Your task to perform on an android device: check storage Image 0: 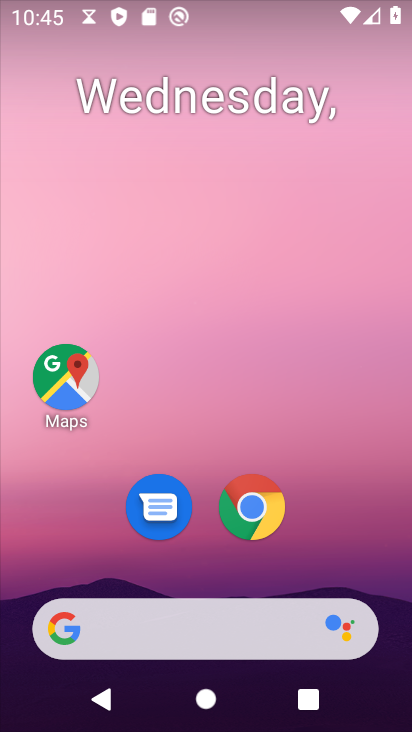
Step 0: drag from (218, 672) to (239, 140)
Your task to perform on an android device: check storage Image 1: 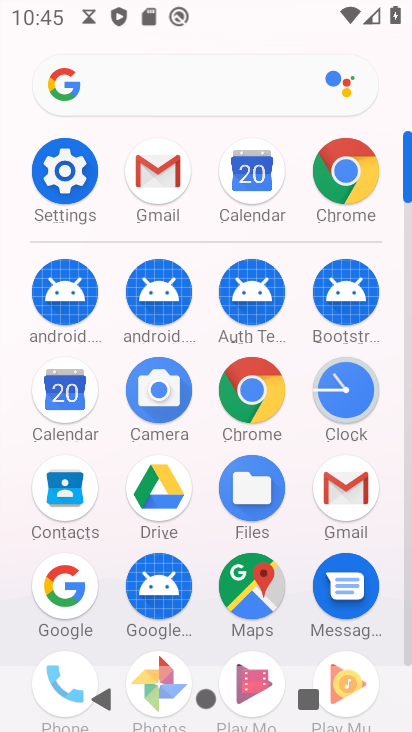
Step 1: click (82, 183)
Your task to perform on an android device: check storage Image 2: 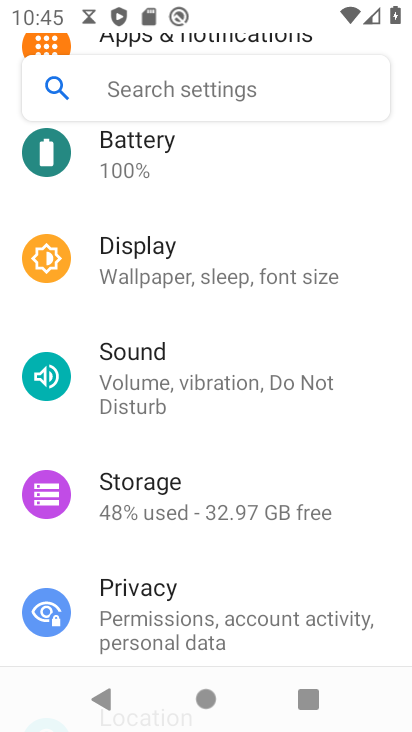
Step 2: click (184, 94)
Your task to perform on an android device: check storage Image 3: 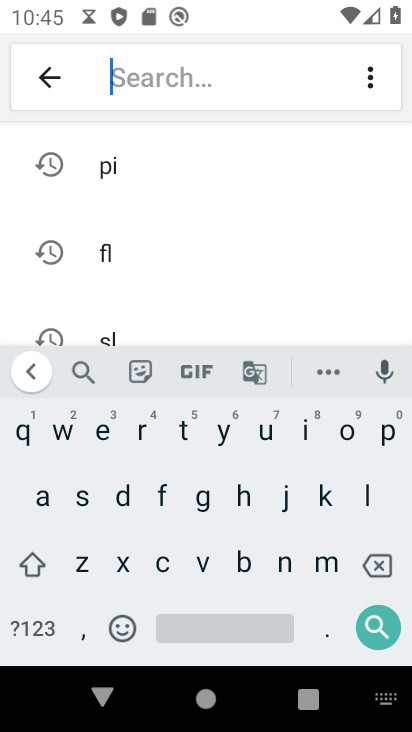
Step 3: click (74, 501)
Your task to perform on an android device: check storage Image 4: 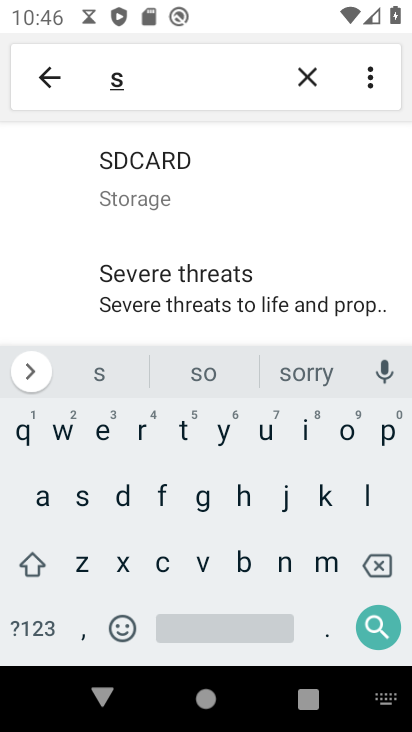
Step 4: click (176, 444)
Your task to perform on an android device: check storage Image 5: 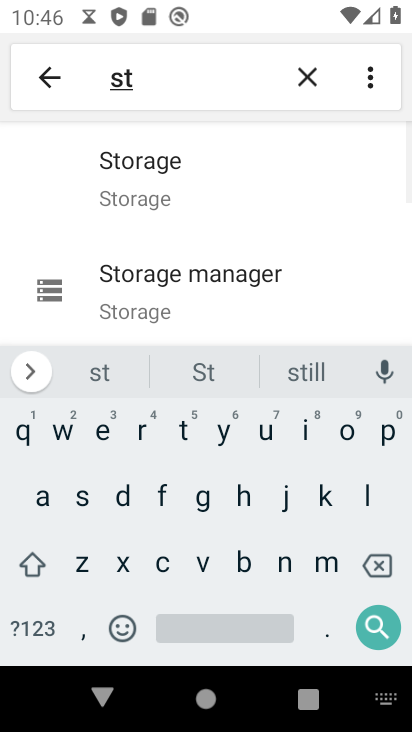
Step 5: click (188, 200)
Your task to perform on an android device: check storage Image 6: 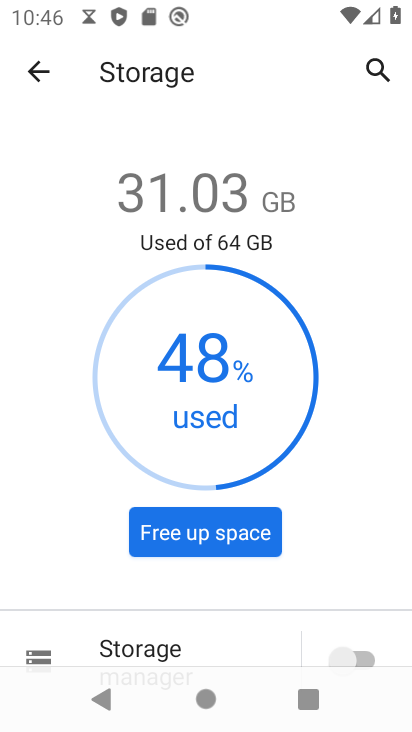
Step 6: task complete